Your task to perform on an android device: turn off improve location accuracy Image 0: 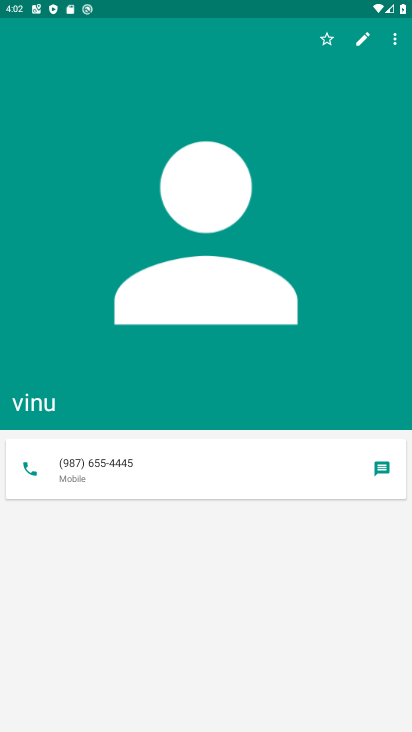
Step 0: press home button
Your task to perform on an android device: turn off improve location accuracy Image 1: 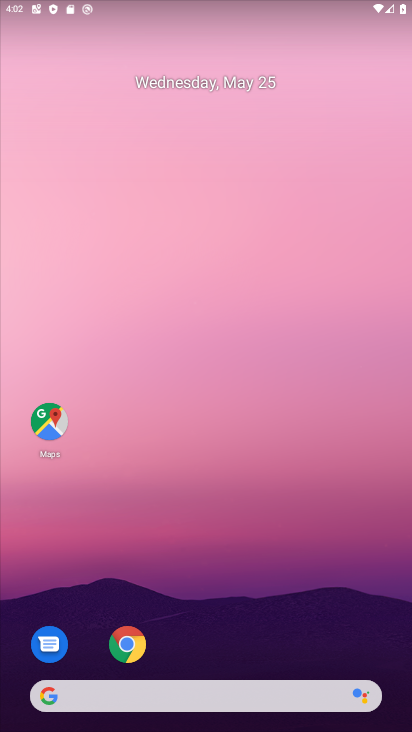
Step 1: drag from (286, 663) to (368, 17)
Your task to perform on an android device: turn off improve location accuracy Image 2: 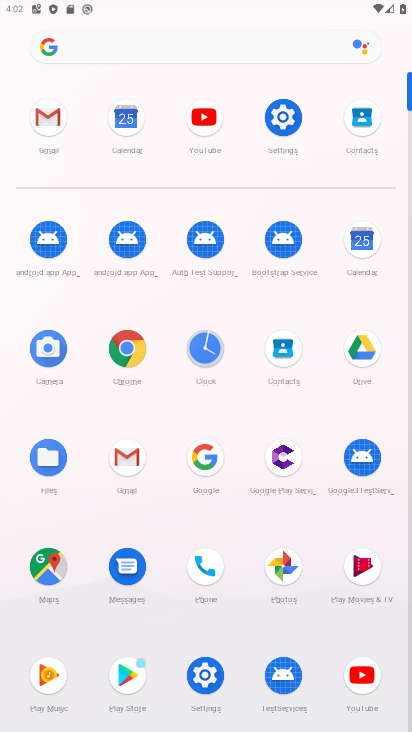
Step 2: click (283, 122)
Your task to perform on an android device: turn off improve location accuracy Image 3: 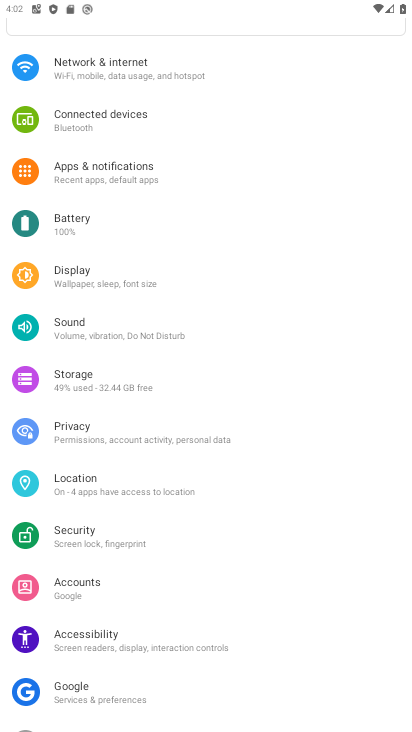
Step 3: click (80, 486)
Your task to perform on an android device: turn off improve location accuracy Image 4: 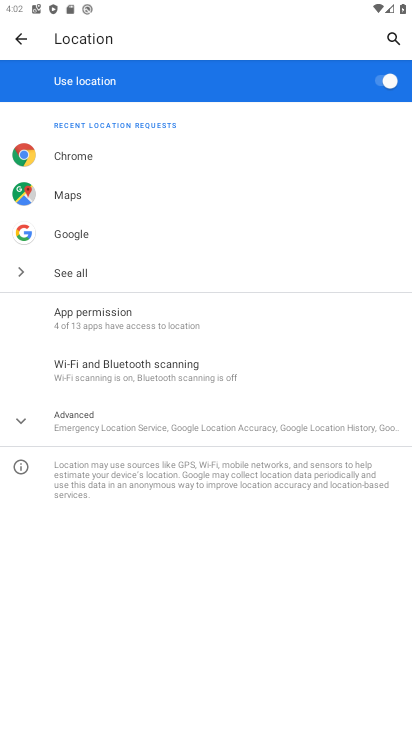
Step 4: click (21, 425)
Your task to perform on an android device: turn off improve location accuracy Image 5: 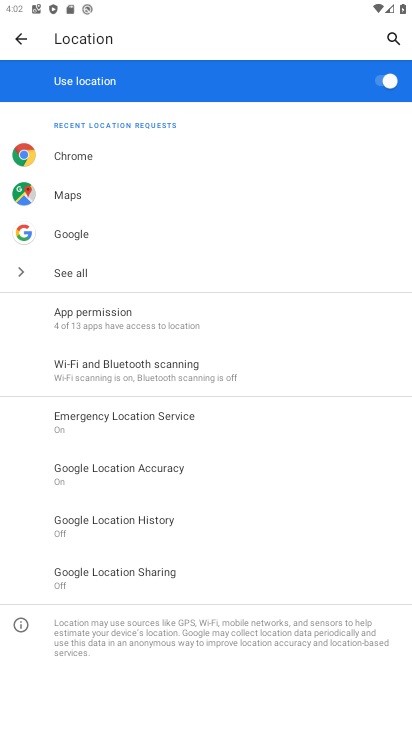
Step 5: click (71, 475)
Your task to perform on an android device: turn off improve location accuracy Image 6: 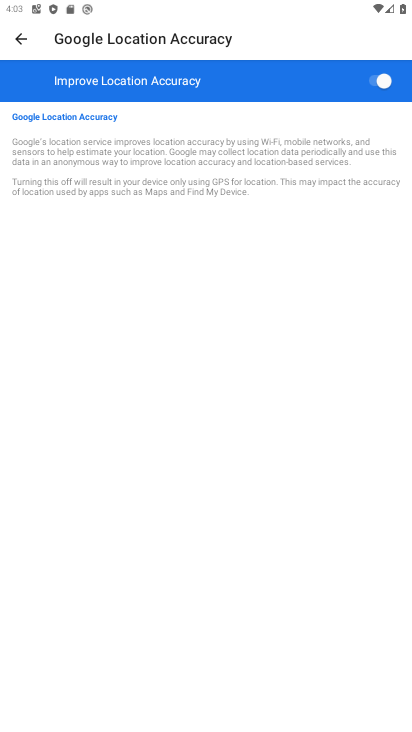
Step 6: click (380, 86)
Your task to perform on an android device: turn off improve location accuracy Image 7: 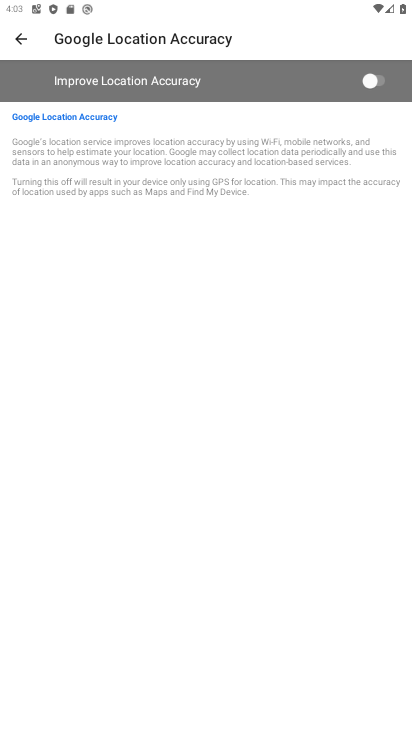
Step 7: task complete